Your task to perform on an android device: Open calendar and show me the first week of next month Image 0: 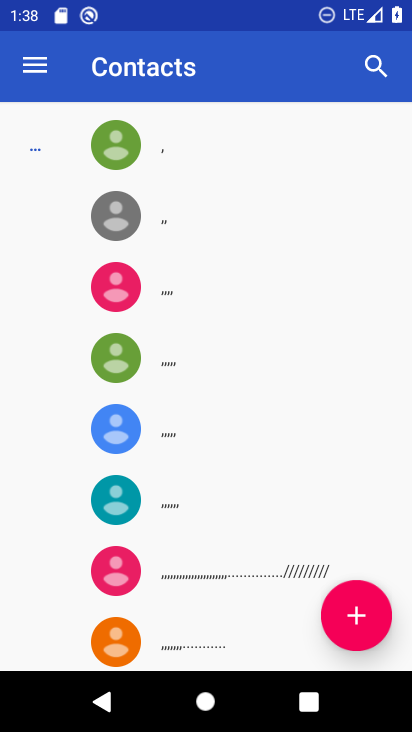
Step 0: press home button
Your task to perform on an android device: Open calendar and show me the first week of next month Image 1: 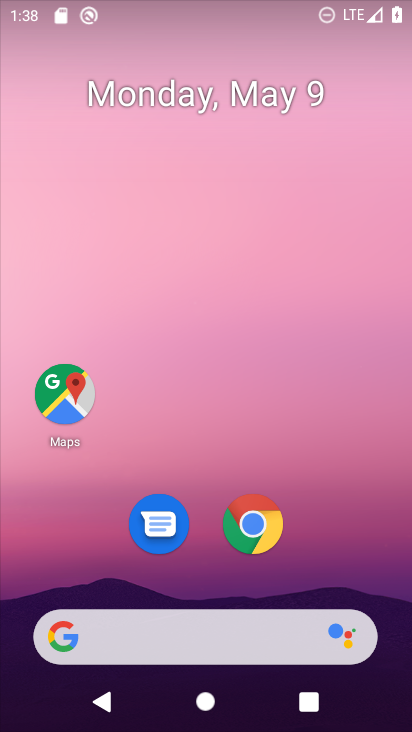
Step 1: drag from (312, 465) to (297, 1)
Your task to perform on an android device: Open calendar and show me the first week of next month Image 2: 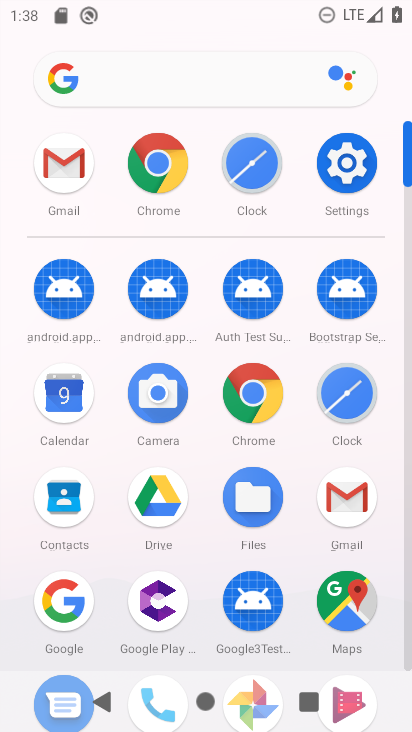
Step 2: click (64, 399)
Your task to perform on an android device: Open calendar and show me the first week of next month Image 3: 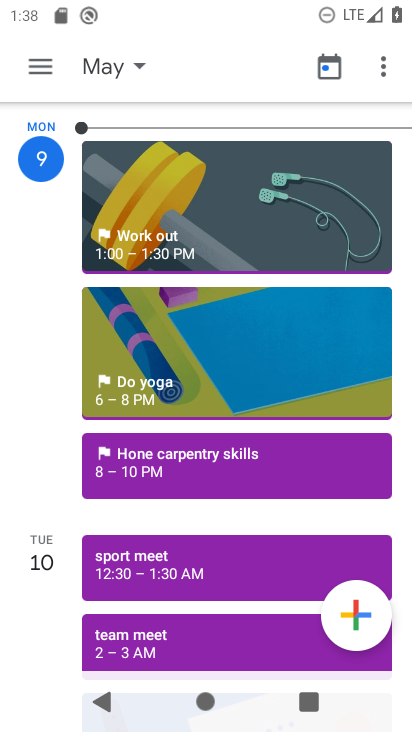
Step 3: click (35, 67)
Your task to perform on an android device: Open calendar and show me the first week of next month Image 4: 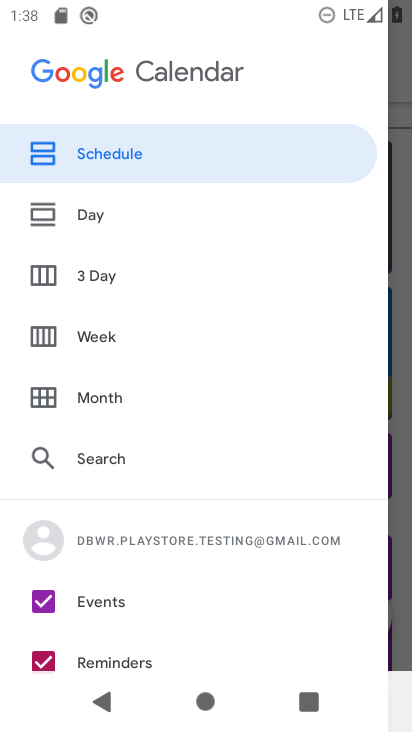
Step 4: click (50, 334)
Your task to perform on an android device: Open calendar and show me the first week of next month Image 5: 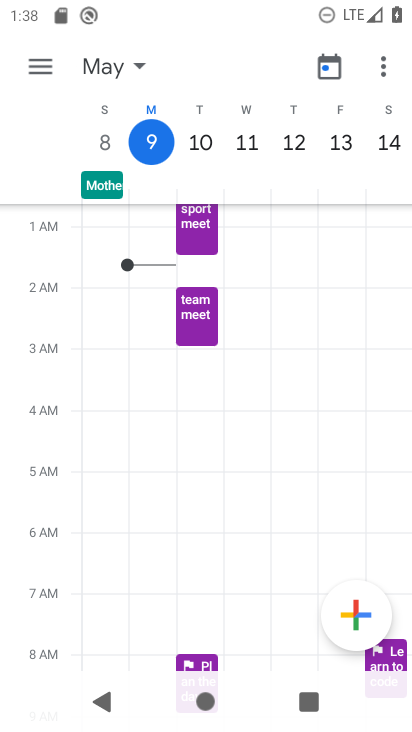
Step 5: task complete